Your task to perform on an android device: Go to wifi settings Image 0: 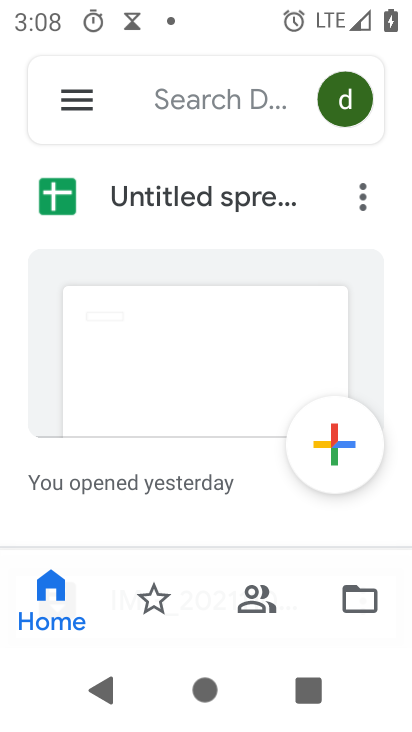
Step 0: press home button
Your task to perform on an android device: Go to wifi settings Image 1: 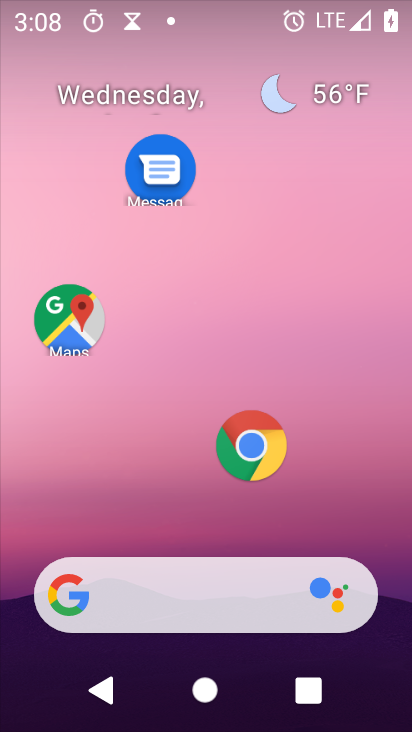
Step 1: drag from (212, 495) to (218, 135)
Your task to perform on an android device: Go to wifi settings Image 2: 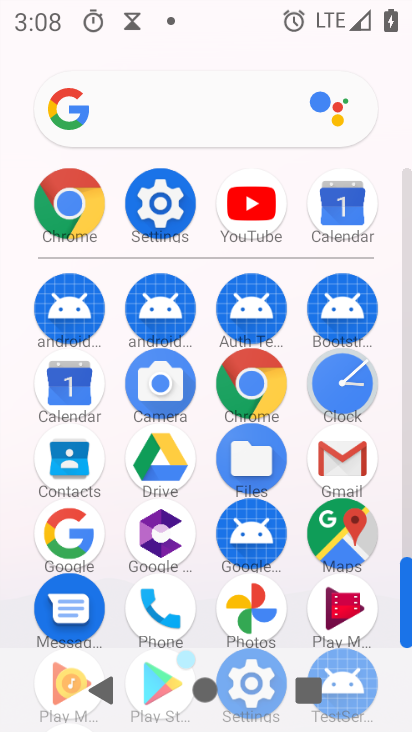
Step 2: drag from (196, 263) to (211, 83)
Your task to perform on an android device: Go to wifi settings Image 3: 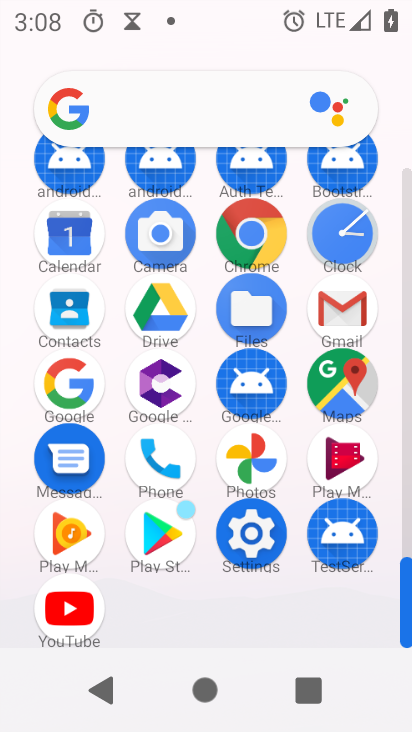
Step 3: click (254, 552)
Your task to perform on an android device: Go to wifi settings Image 4: 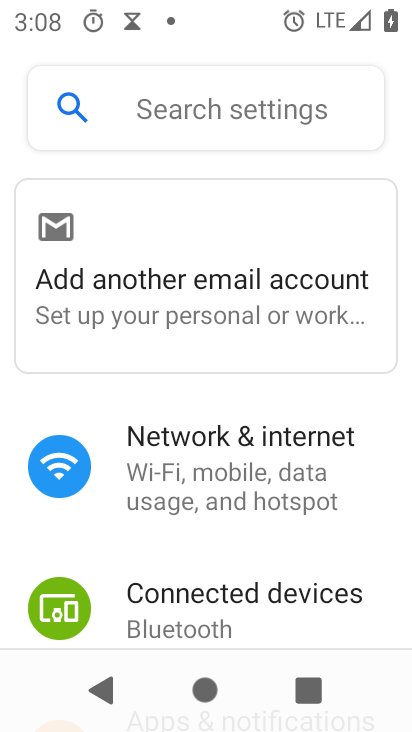
Step 4: click (144, 460)
Your task to perform on an android device: Go to wifi settings Image 5: 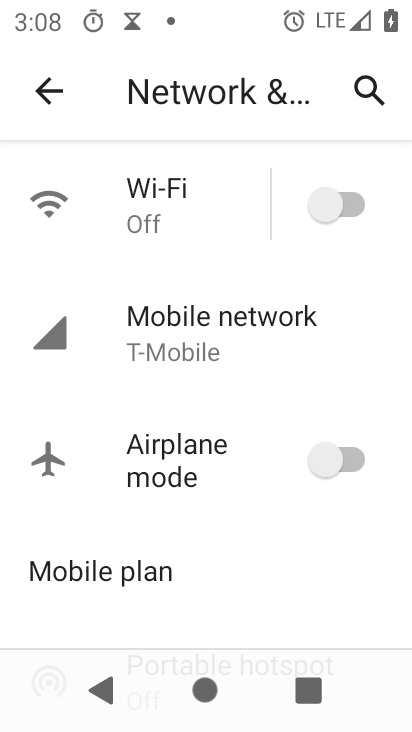
Step 5: click (162, 222)
Your task to perform on an android device: Go to wifi settings Image 6: 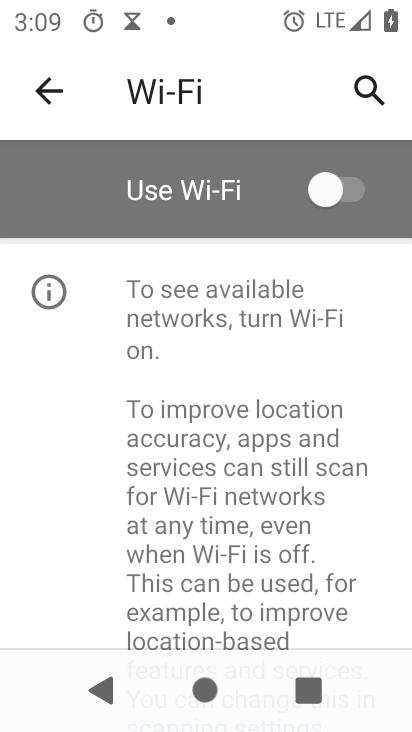
Step 6: task complete